Your task to perform on an android device: Go to privacy settings Image 0: 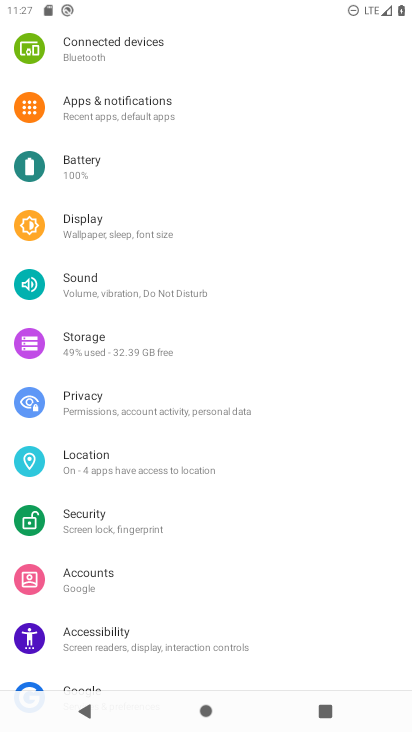
Step 0: click (102, 392)
Your task to perform on an android device: Go to privacy settings Image 1: 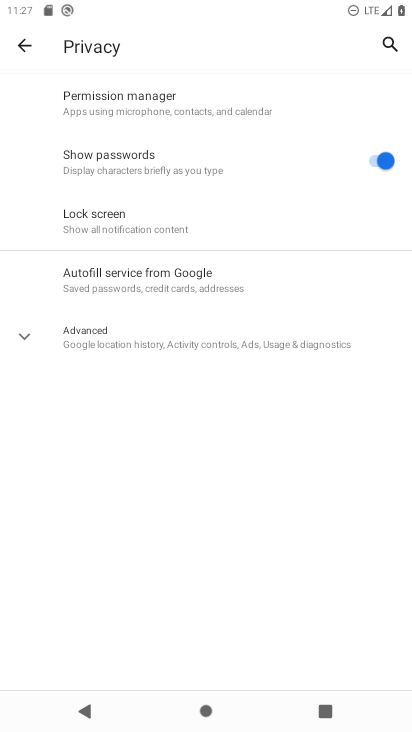
Step 1: task complete